Your task to perform on an android device: Open Chrome and go to the settings page Image 0: 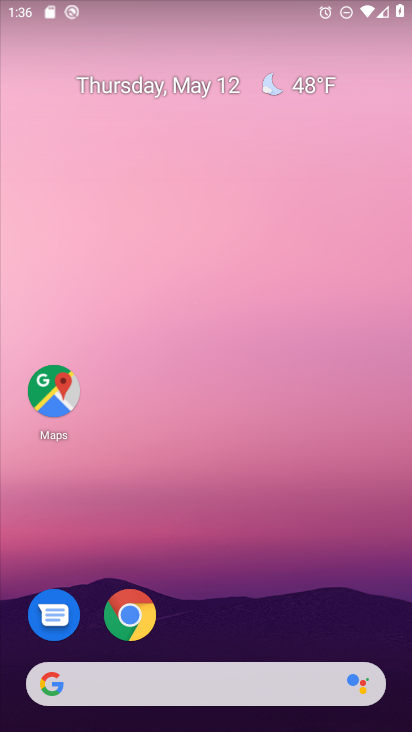
Step 0: drag from (289, 659) to (300, 32)
Your task to perform on an android device: Open Chrome and go to the settings page Image 1: 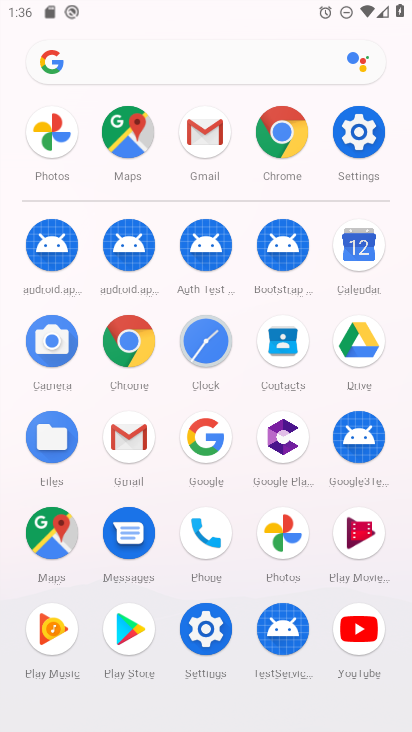
Step 1: click (139, 344)
Your task to perform on an android device: Open Chrome and go to the settings page Image 2: 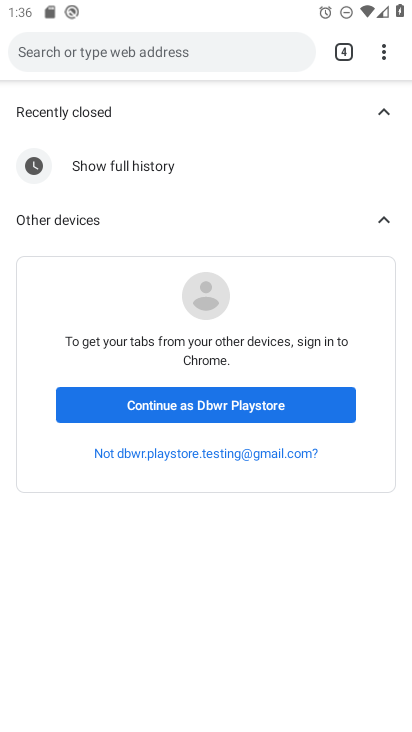
Step 2: click (369, 44)
Your task to perform on an android device: Open Chrome and go to the settings page Image 3: 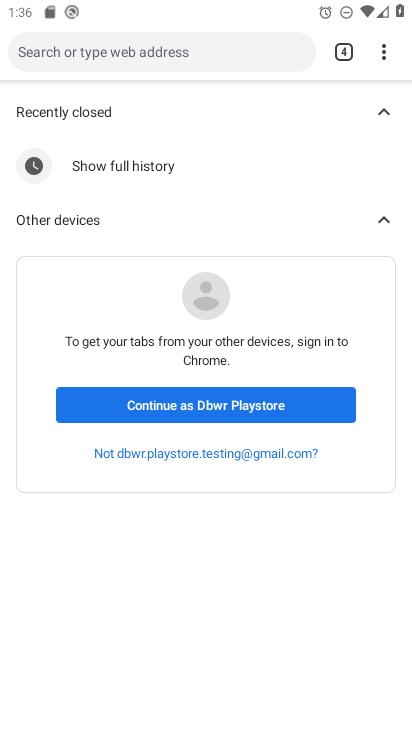
Step 3: task complete